Your task to perform on an android device: turn off data saver in the chrome app Image 0: 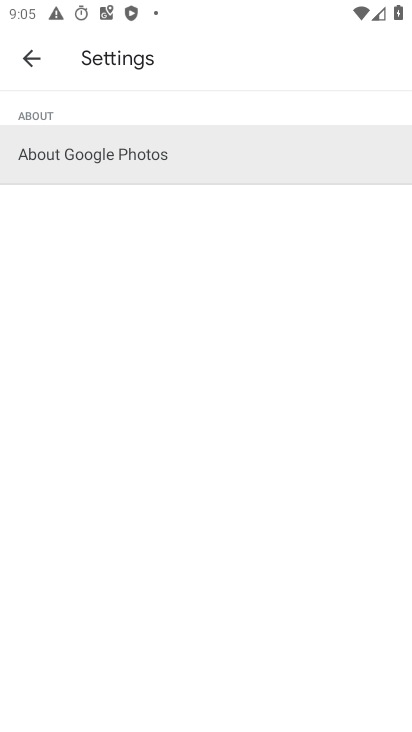
Step 0: press home button
Your task to perform on an android device: turn off data saver in the chrome app Image 1: 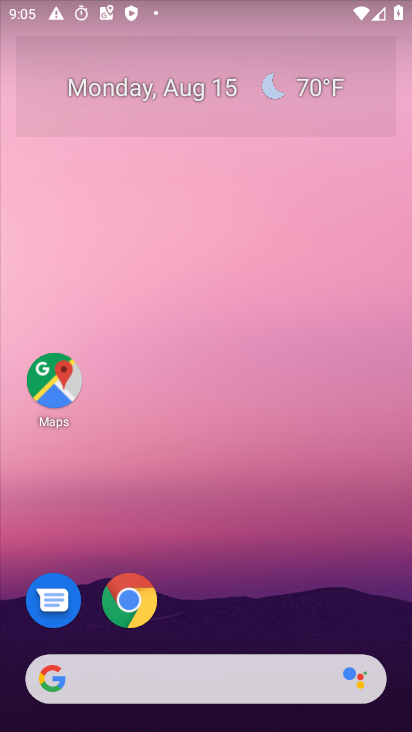
Step 1: click (117, 600)
Your task to perform on an android device: turn off data saver in the chrome app Image 2: 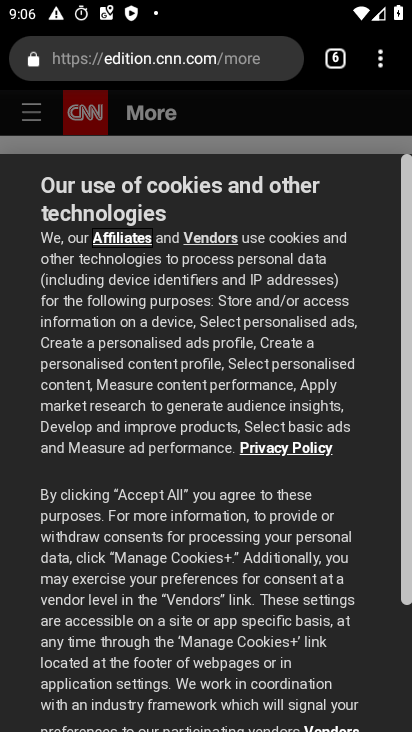
Step 2: click (383, 65)
Your task to perform on an android device: turn off data saver in the chrome app Image 3: 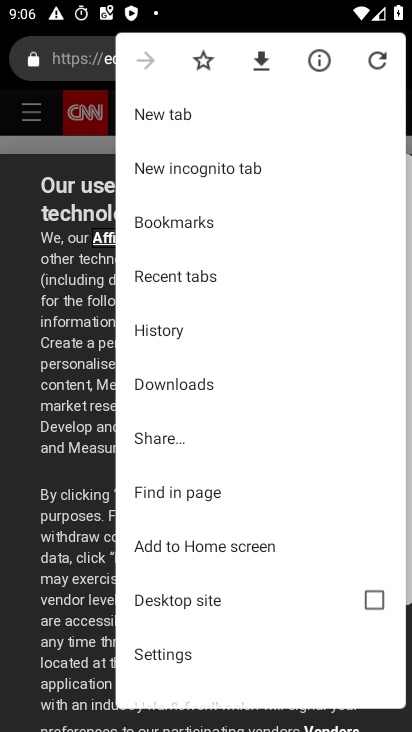
Step 3: click (160, 652)
Your task to perform on an android device: turn off data saver in the chrome app Image 4: 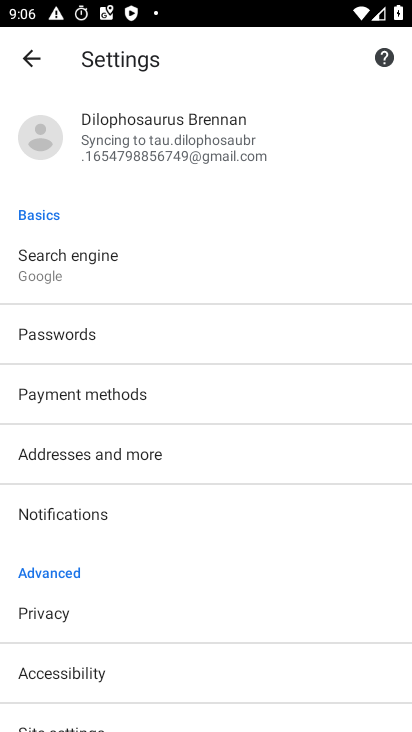
Step 4: task complete